Your task to perform on an android device: open app "Google Play Games" (install if not already installed) Image 0: 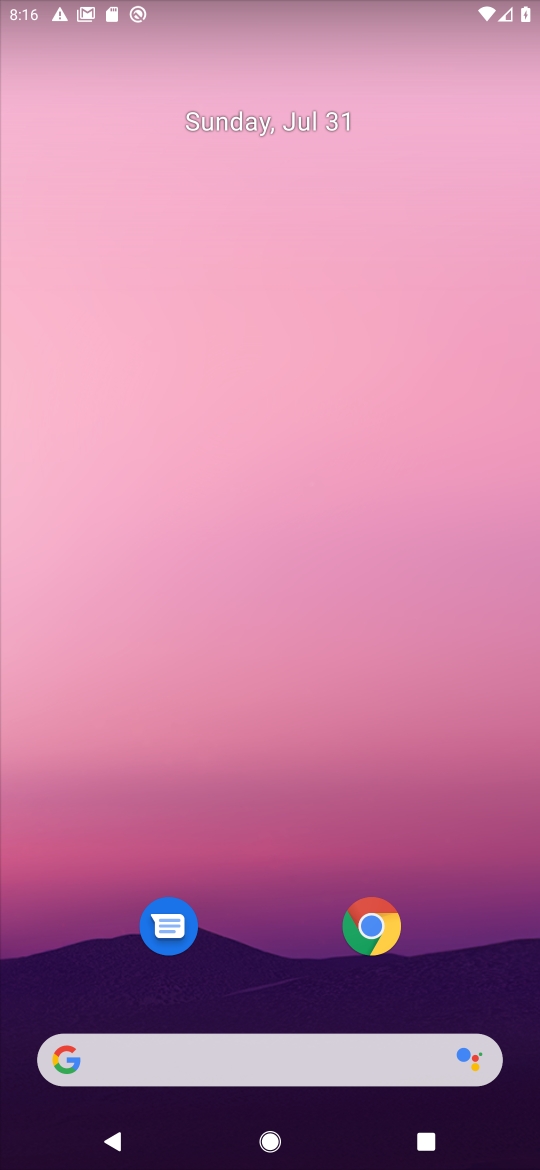
Step 0: drag from (154, 719) to (288, 25)
Your task to perform on an android device: open app "Google Play Games" (install if not already installed) Image 1: 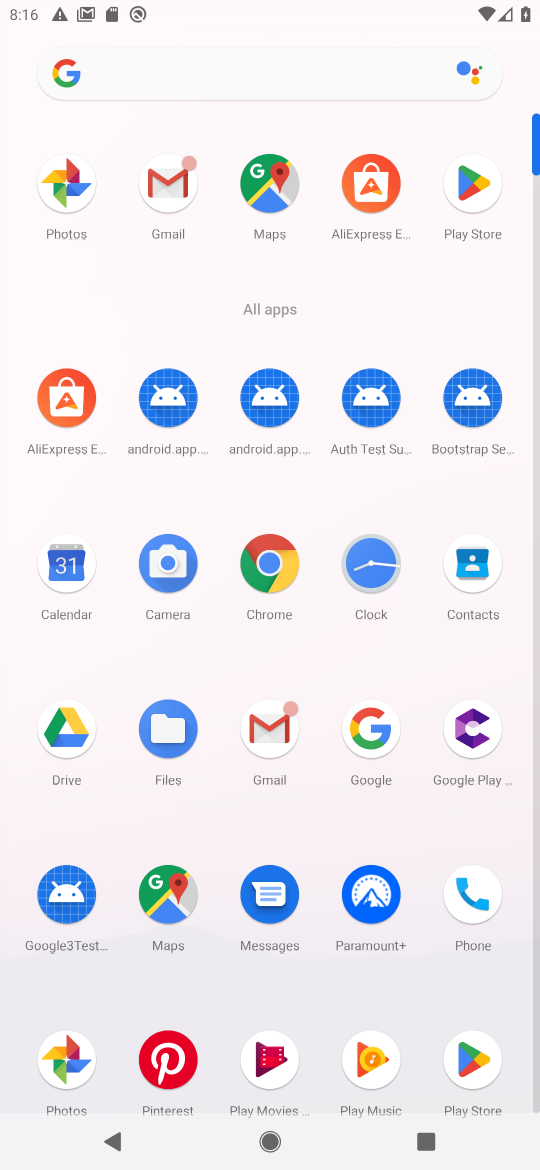
Step 1: click (472, 176)
Your task to perform on an android device: open app "Google Play Games" (install if not already installed) Image 2: 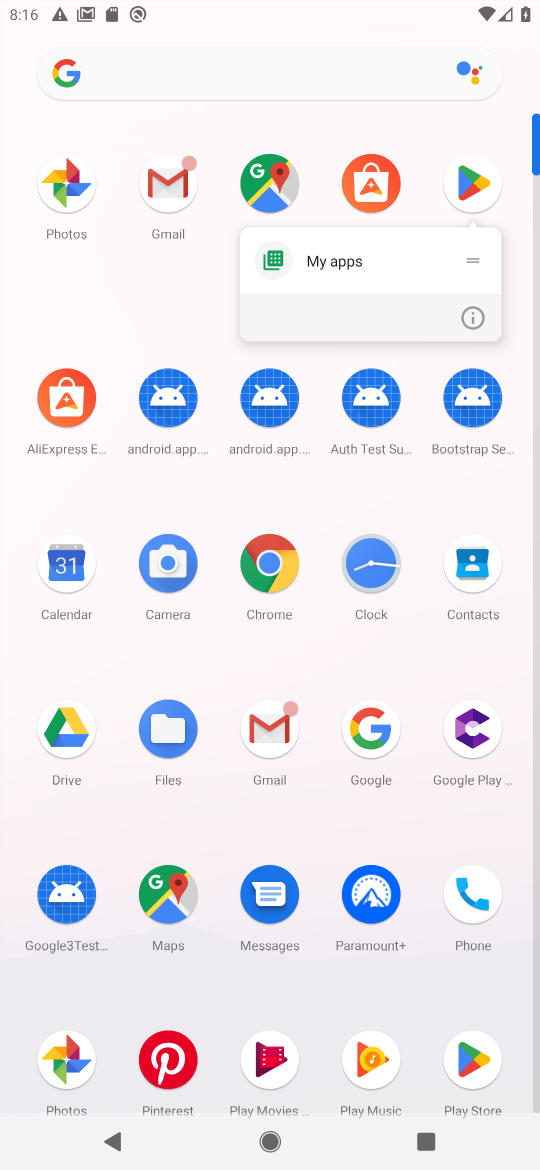
Step 2: click (483, 186)
Your task to perform on an android device: open app "Google Play Games" (install if not already installed) Image 3: 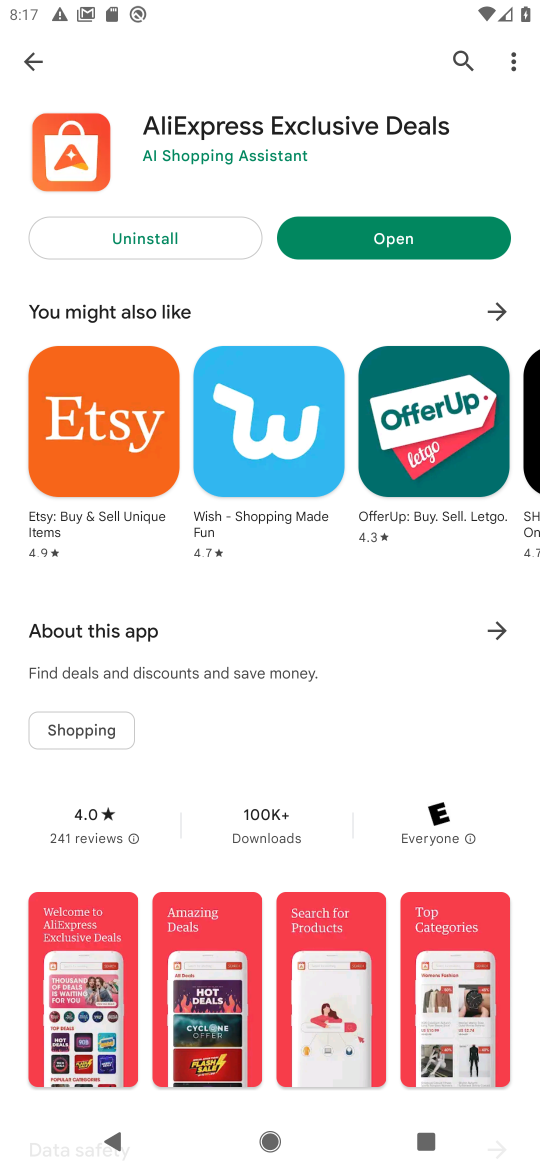
Step 3: click (464, 77)
Your task to perform on an android device: open app "Google Play Games" (install if not already installed) Image 4: 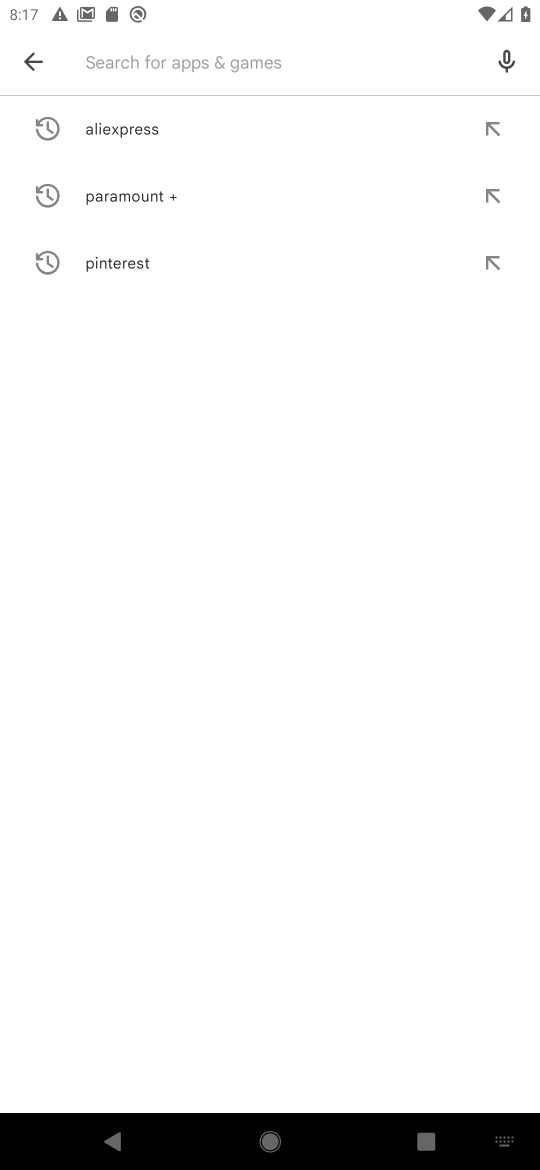
Step 4: click (162, 74)
Your task to perform on an android device: open app "Google Play Games" (install if not already installed) Image 5: 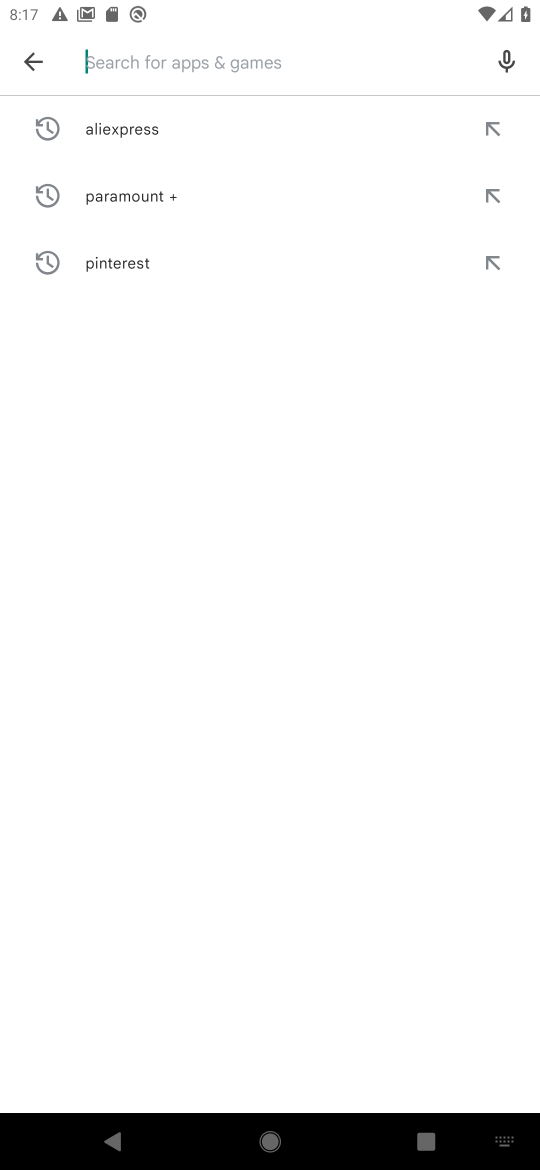
Step 5: type "google play games"
Your task to perform on an android device: open app "Google Play Games" (install if not already installed) Image 6: 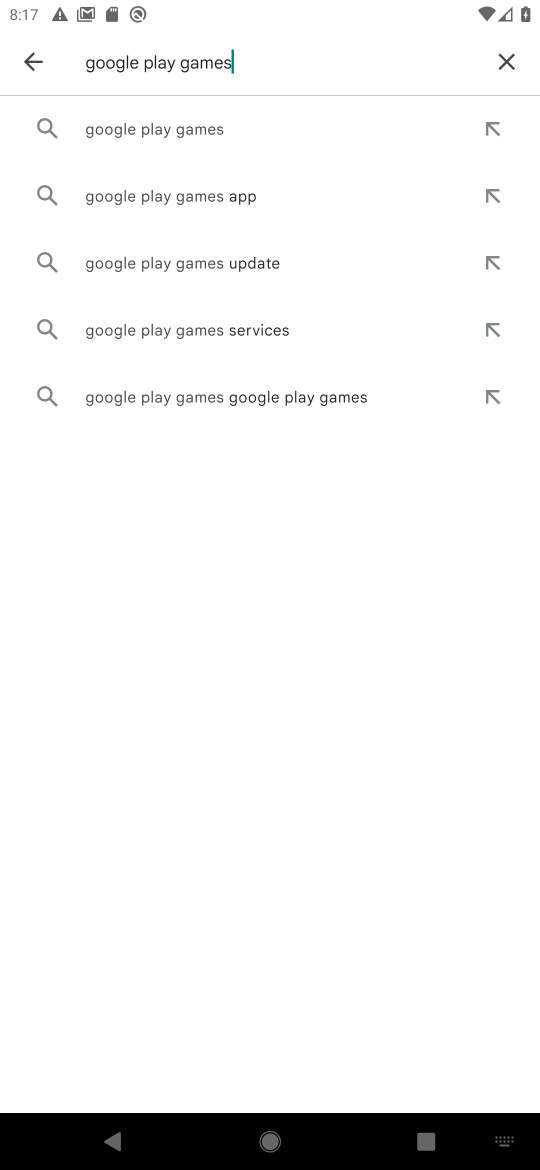
Step 6: click (193, 130)
Your task to perform on an android device: open app "Google Play Games" (install if not already installed) Image 7: 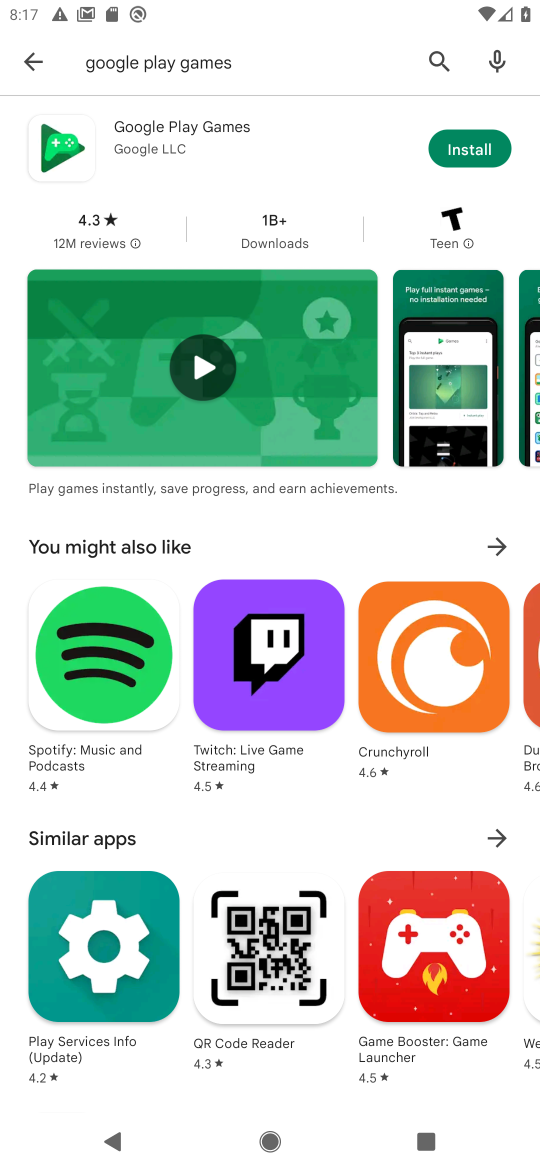
Step 7: click (480, 146)
Your task to perform on an android device: open app "Google Play Games" (install if not already installed) Image 8: 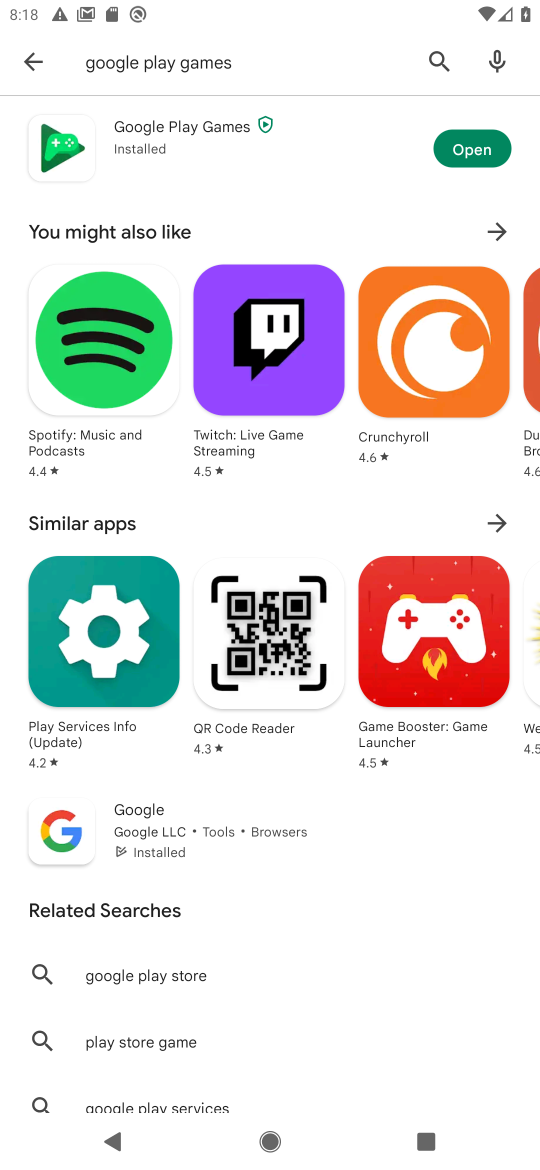
Step 8: click (471, 133)
Your task to perform on an android device: open app "Google Play Games" (install if not already installed) Image 9: 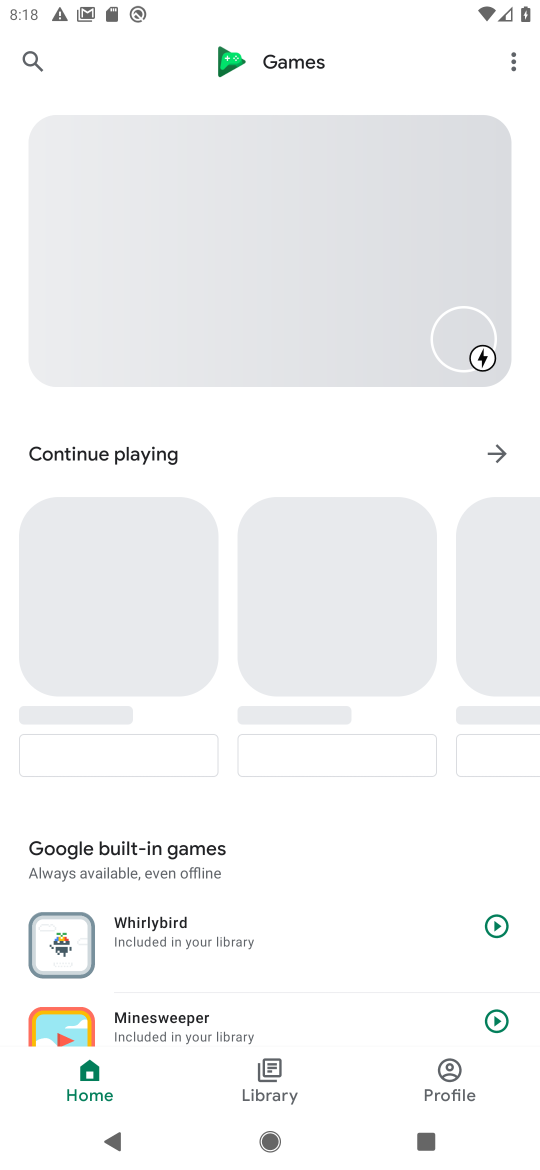
Step 9: task complete